Your task to perform on an android device: Turn on the flashlight Image 0: 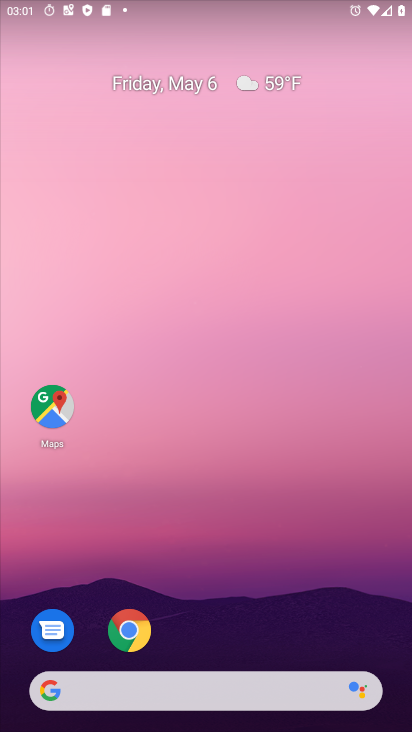
Step 0: drag from (222, 615) to (213, 263)
Your task to perform on an android device: Turn on the flashlight Image 1: 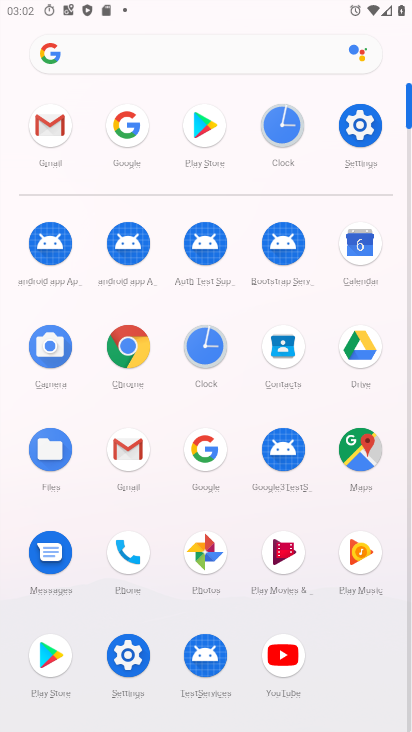
Step 1: click (353, 134)
Your task to perform on an android device: Turn on the flashlight Image 2: 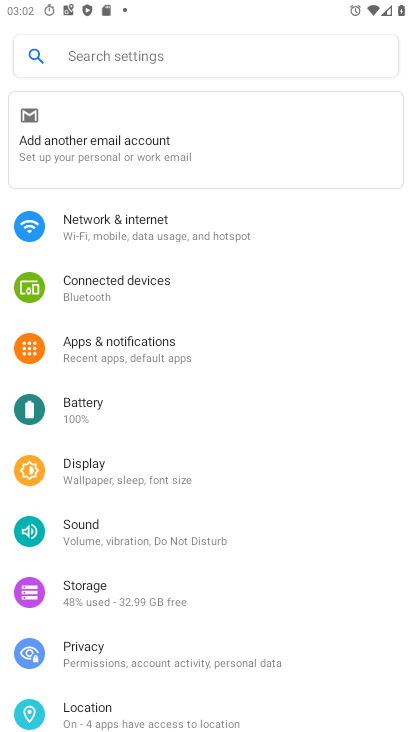
Step 2: click (116, 470)
Your task to perform on an android device: Turn on the flashlight Image 3: 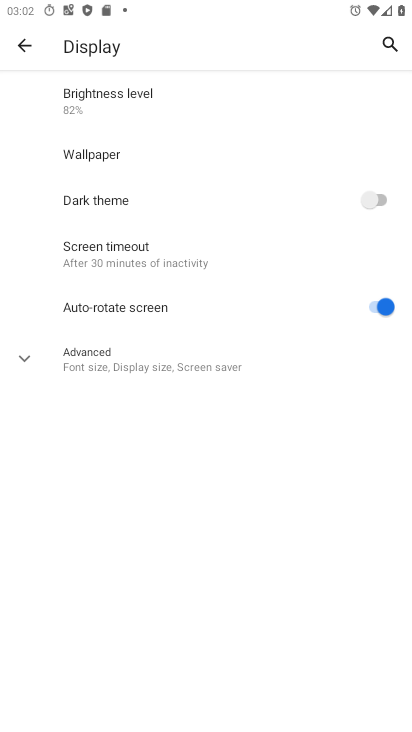
Step 3: task complete